Your task to perform on an android device: check data usage Image 0: 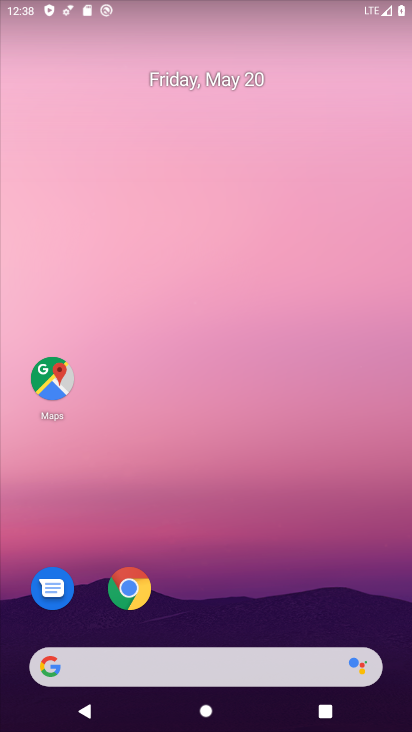
Step 0: drag from (388, 615) to (312, 216)
Your task to perform on an android device: check data usage Image 1: 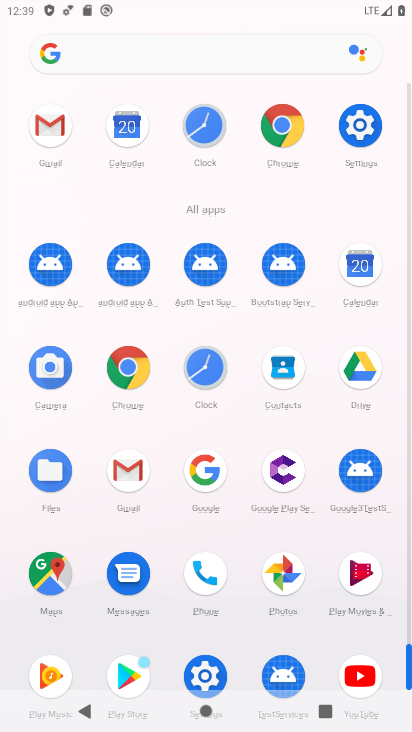
Step 1: click (206, 675)
Your task to perform on an android device: check data usage Image 2: 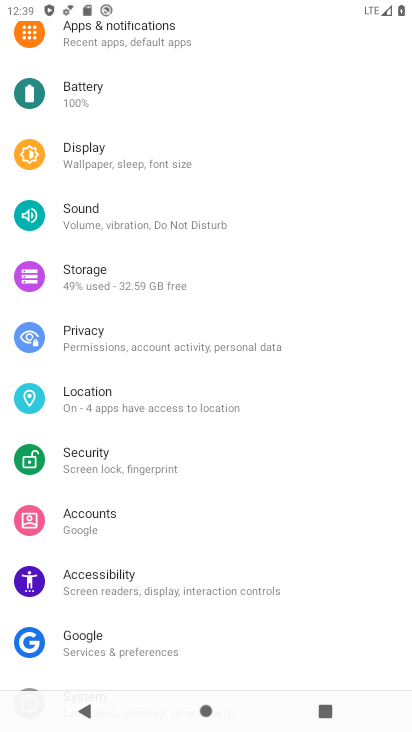
Step 2: drag from (303, 146) to (310, 559)
Your task to perform on an android device: check data usage Image 3: 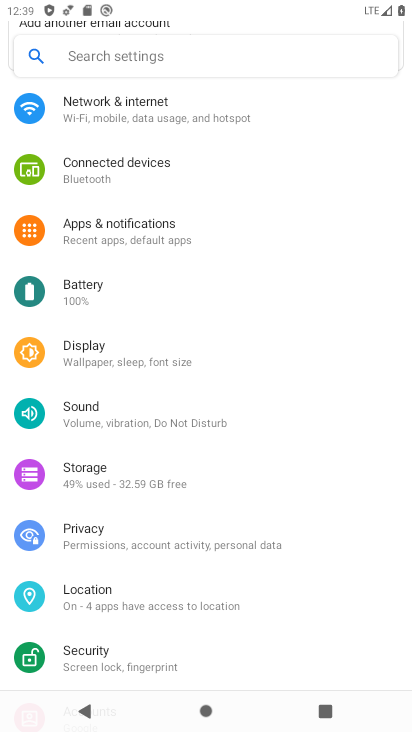
Step 3: click (111, 104)
Your task to perform on an android device: check data usage Image 4: 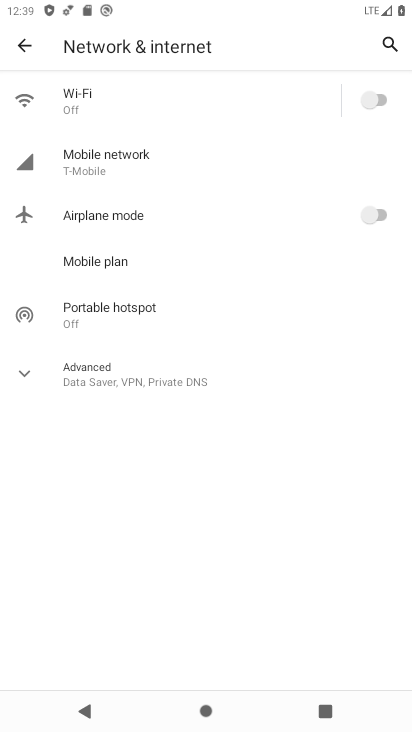
Step 4: click (94, 163)
Your task to perform on an android device: check data usage Image 5: 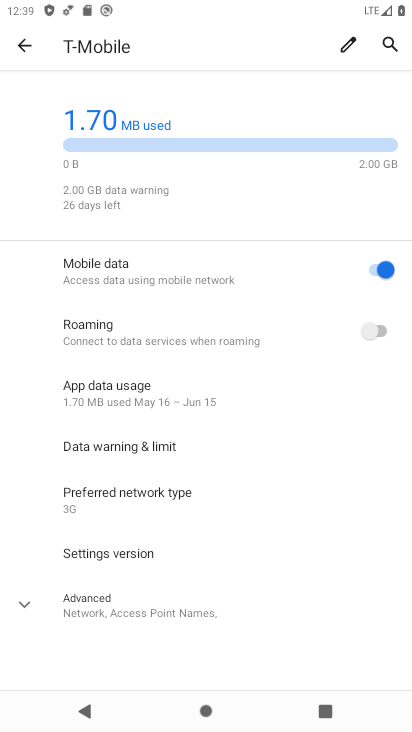
Step 5: task complete